Your task to perform on an android device: Go to wifi settings Image 0: 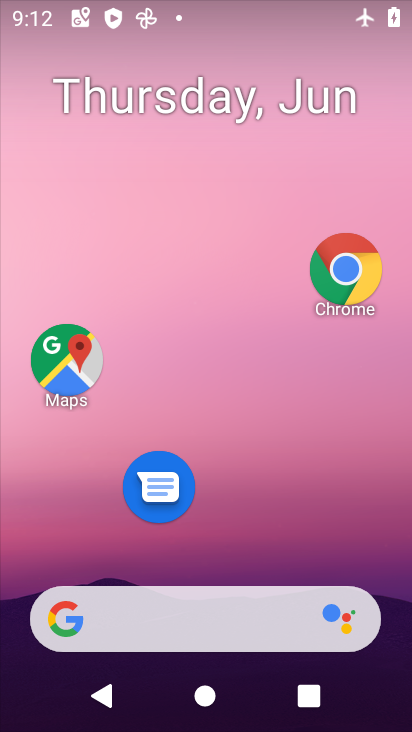
Step 0: drag from (212, 551) to (224, 262)
Your task to perform on an android device: Go to wifi settings Image 1: 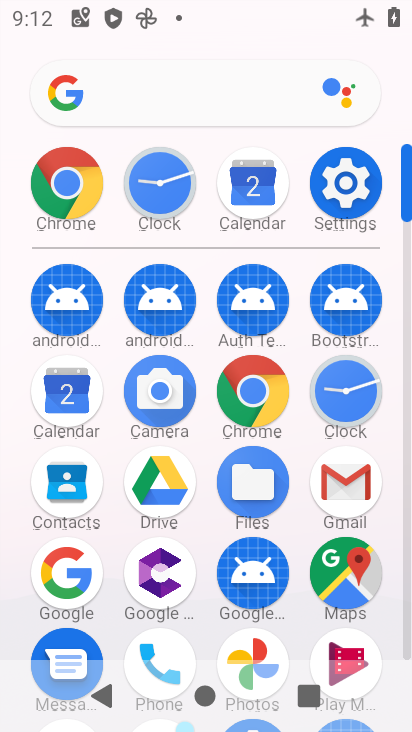
Step 1: click (348, 186)
Your task to perform on an android device: Go to wifi settings Image 2: 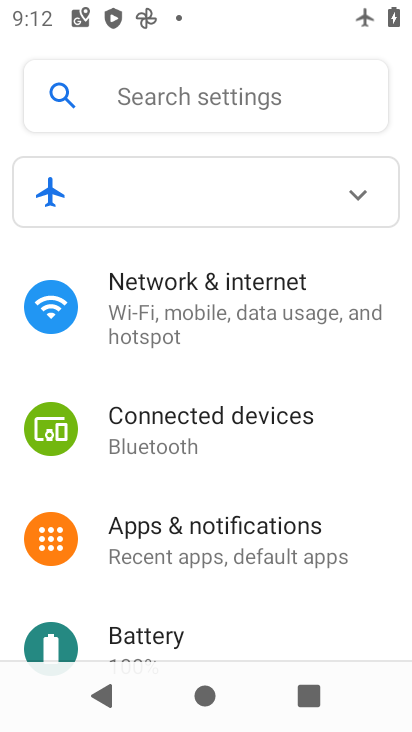
Step 2: click (199, 326)
Your task to perform on an android device: Go to wifi settings Image 3: 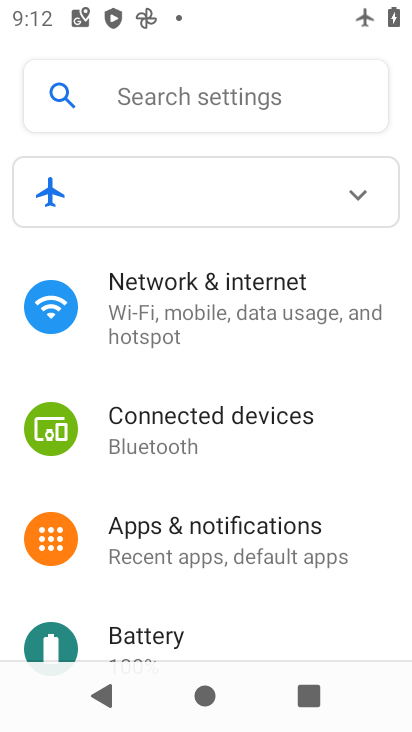
Step 3: click (198, 325)
Your task to perform on an android device: Go to wifi settings Image 4: 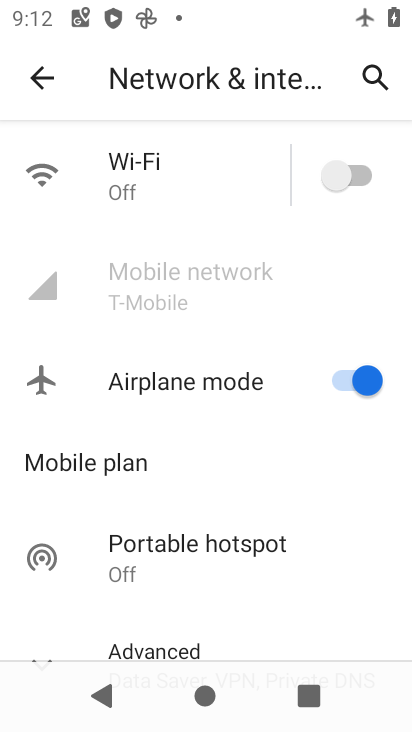
Step 4: click (227, 178)
Your task to perform on an android device: Go to wifi settings Image 5: 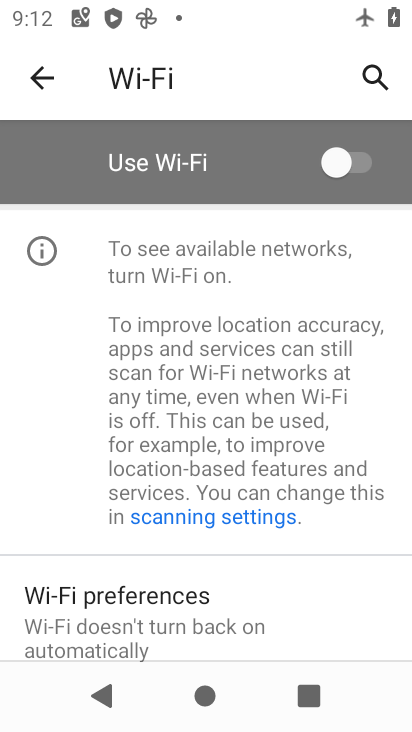
Step 5: task complete